Your task to perform on an android device: Go to notification settings Image 0: 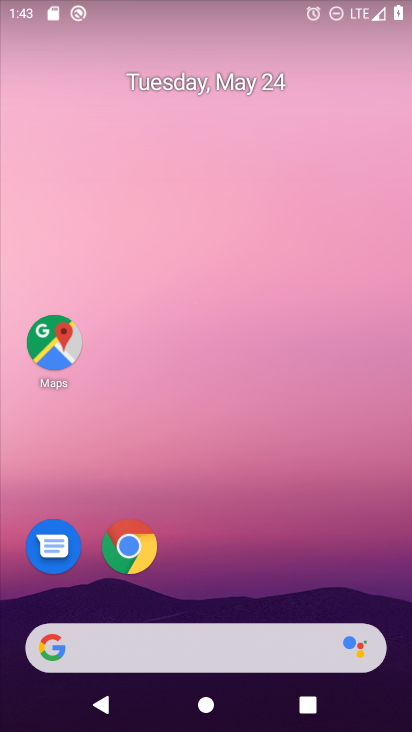
Step 0: drag from (219, 607) to (241, 44)
Your task to perform on an android device: Go to notification settings Image 1: 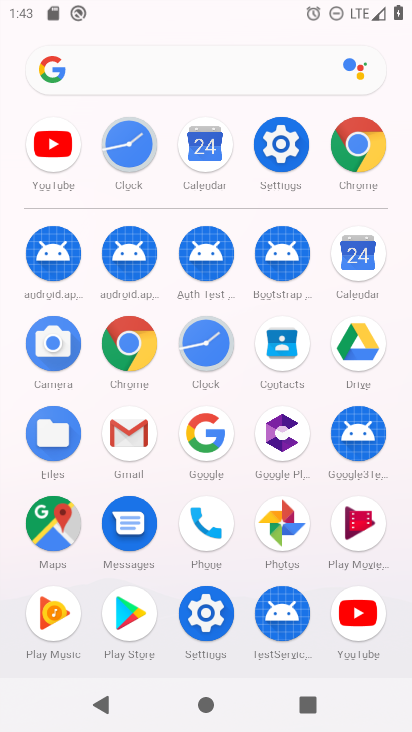
Step 1: click (279, 153)
Your task to perform on an android device: Go to notification settings Image 2: 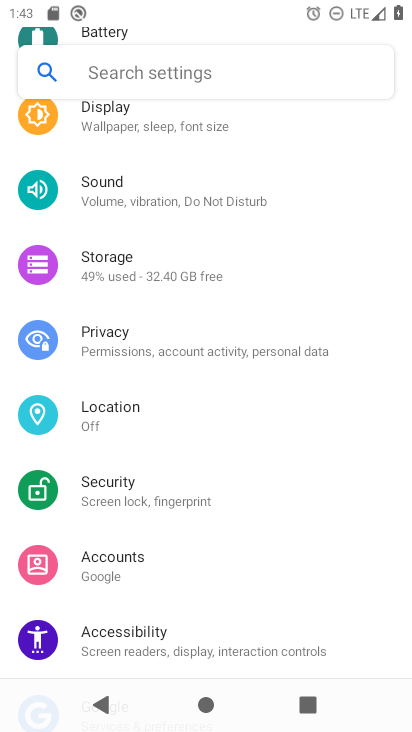
Step 2: drag from (200, 254) to (203, 576)
Your task to perform on an android device: Go to notification settings Image 3: 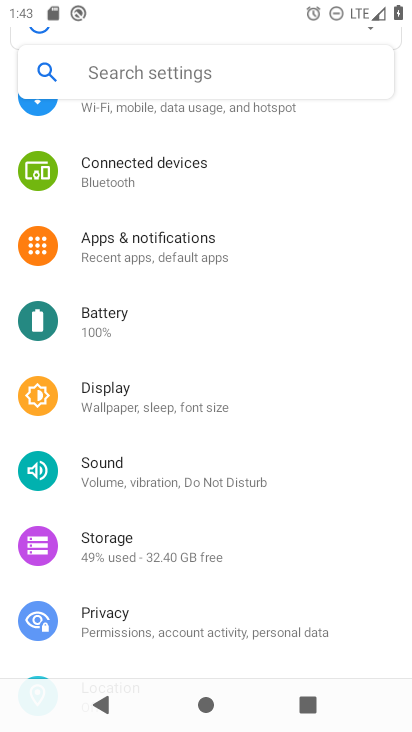
Step 3: click (169, 258)
Your task to perform on an android device: Go to notification settings Image 4: 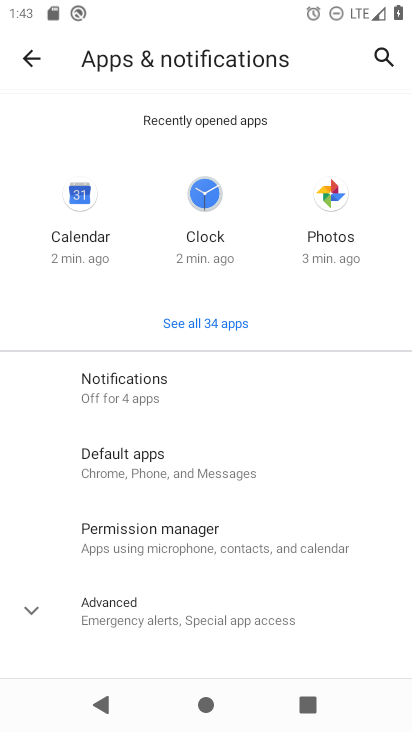
Step 4: task complete